Your task to perform on an android device: Go to Maps Image 0: 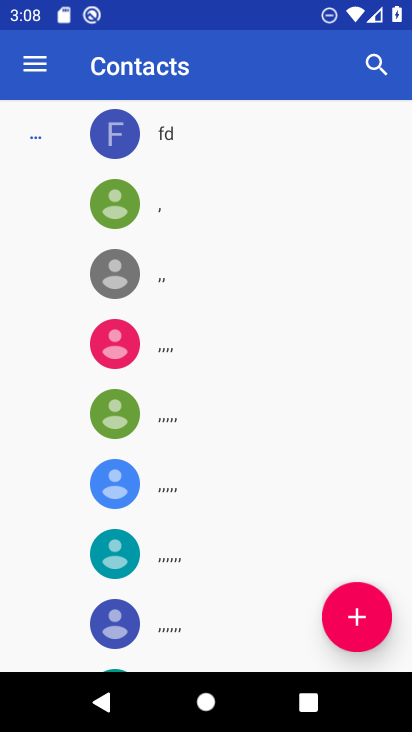
Step 0: press back button
Your task to perform on an android device: Go to Maps Image 1: 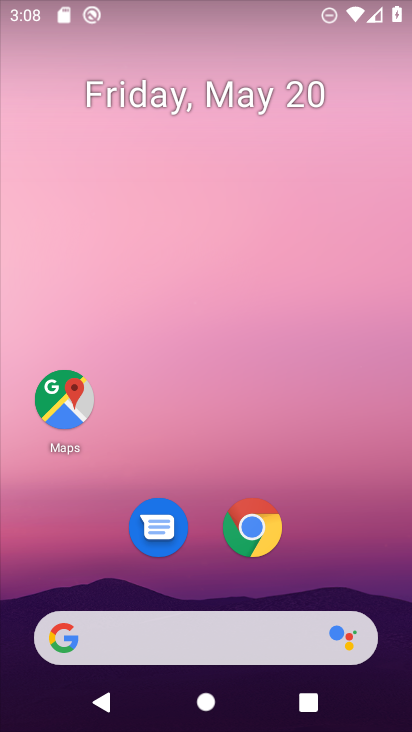
Step 1: click (59, 391)
Your task to perform on an android device: Go to Maps Image 2: 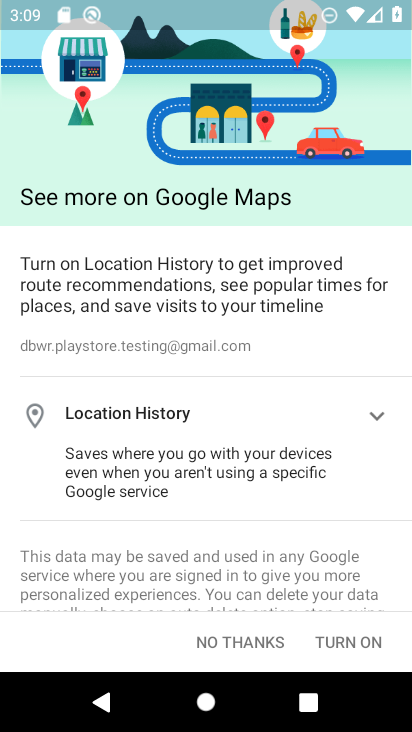
Step 2: task complete